Your task to perform on an android device: Go to ESPN.com Image 0: 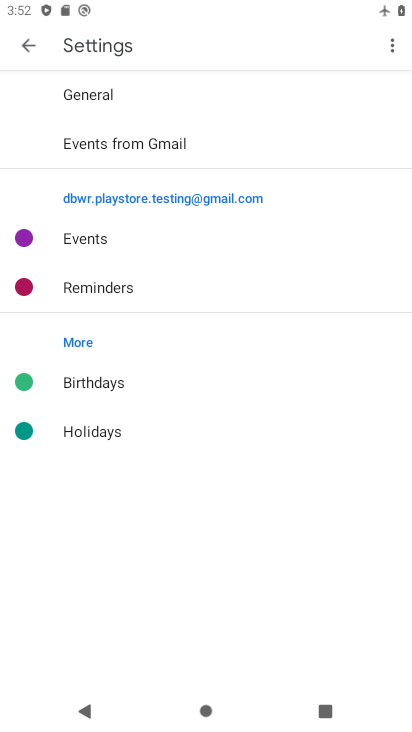
Step 0: press home button
Your task to perform on an android device: Go to ESPN.com Image 1: 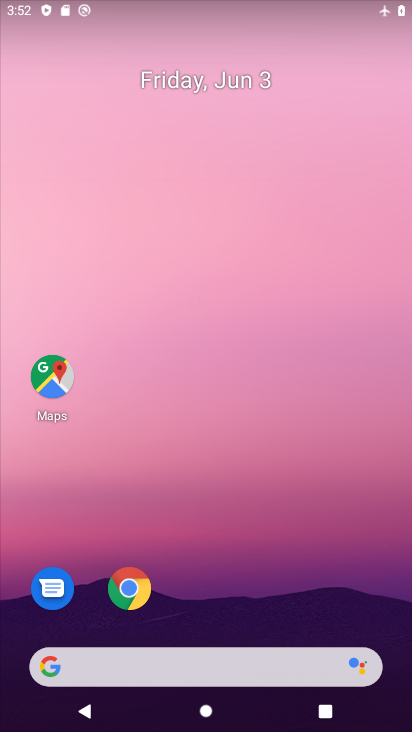
Step 1: click (128, 600)
Your task to perform on an android device: Go to ESPN.com Image 2: 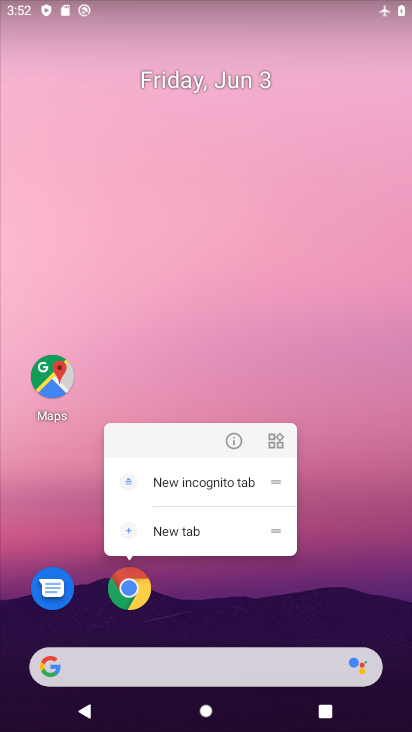
Step 2: click (128, 600)
Your task to perform on an android device: Go to ESPN.com Image 3: 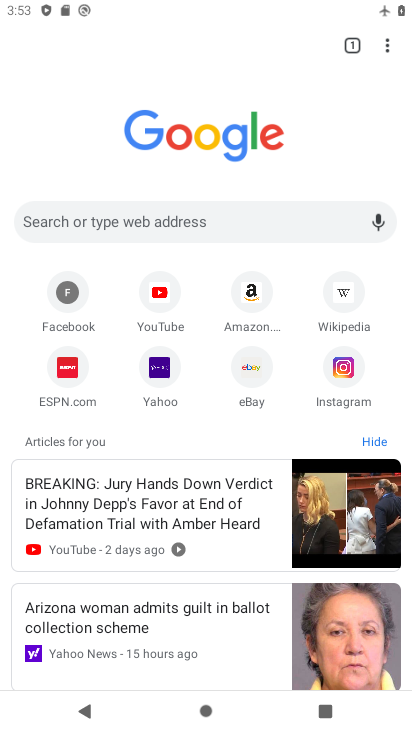
Step 3: click (44, 388)
Your task to perform on an android device: Go to ESPN.com Image 4: 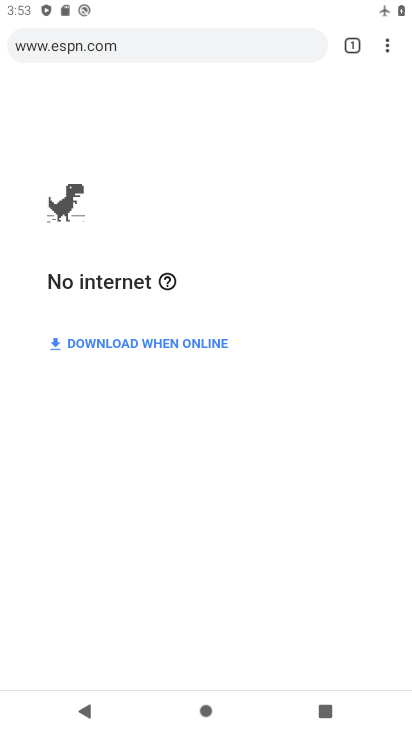
Step 4: task complete